Your task to perform on an android device: Go to Amazon Image 0: 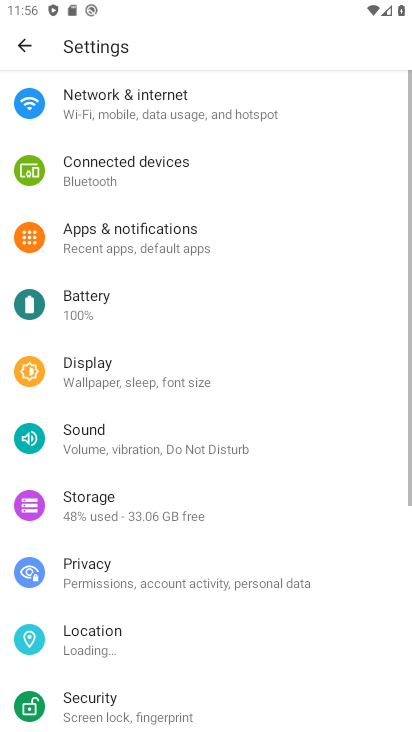
Step 0: press home button
Your task to perform on an android device: Go to Amazon Image 1: 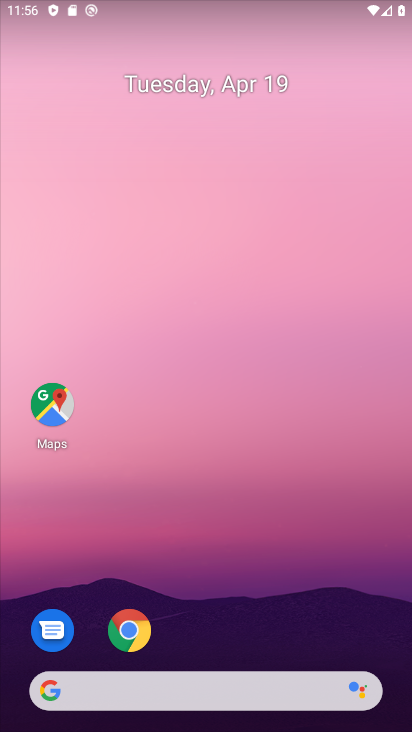
Step 1: drag from (181, 686) to (340, 60)
Your task to perform on an android device: Go to Amazon Image 2: 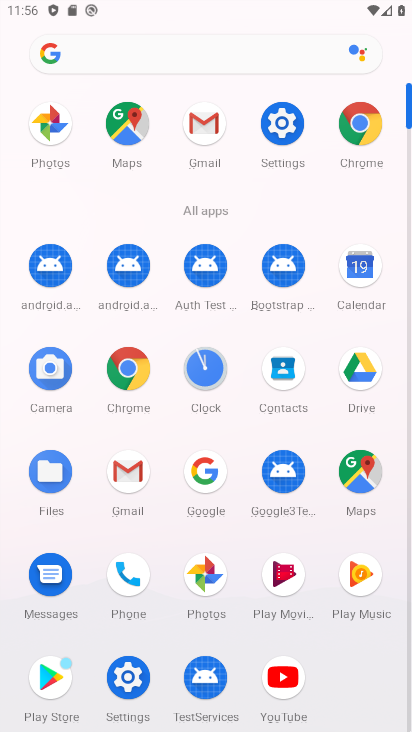
Step 2: click (363, 122)
Your task to perform on an android device: Go to Amazon Image 3: 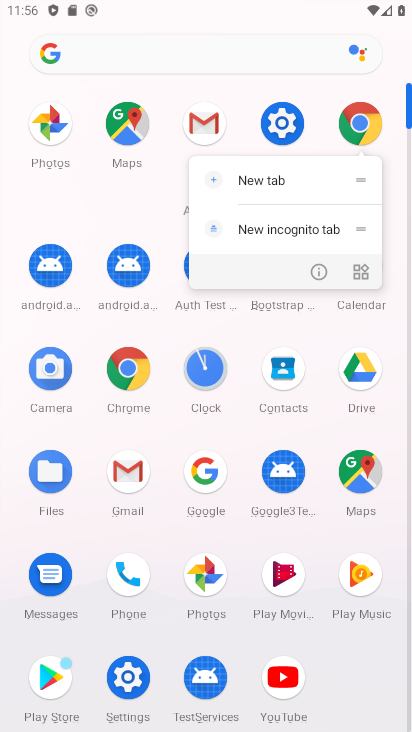
Step 3: click (362, 125)
Your task to perform on an android device: Go to Amazon Image 4: 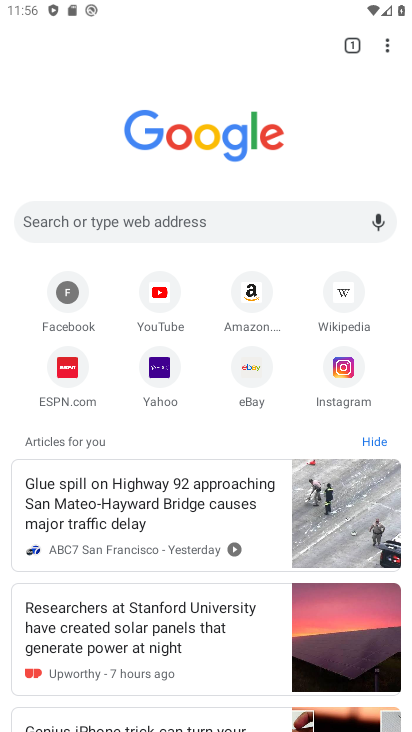
Step 4: click (255, 299)
Your task to perform on an android device: Go to Amazon Image 5: 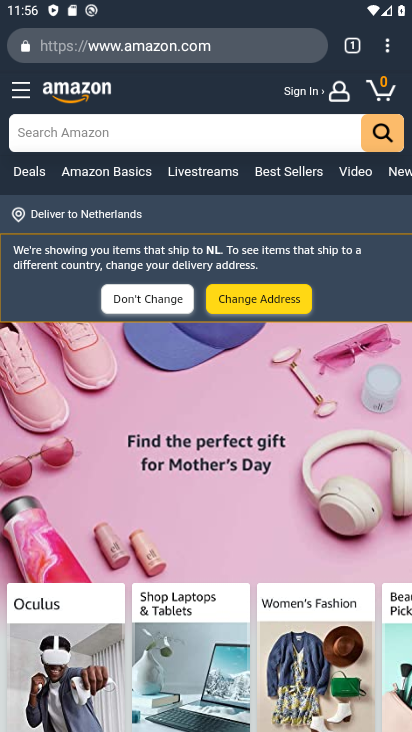
Step 5: task complete